Your task to perform on an android device: change the upload size in google photos Image 0: 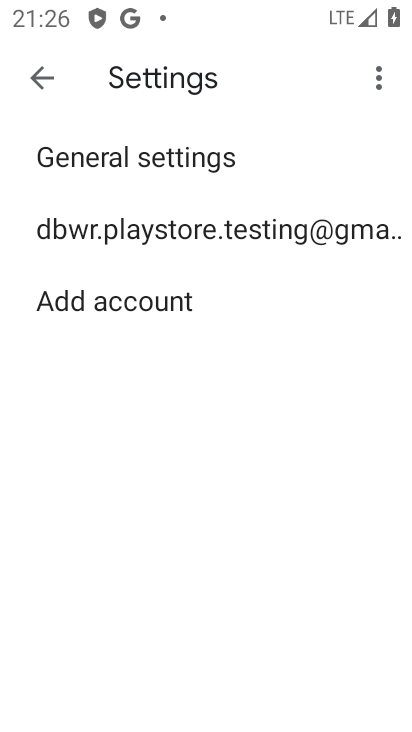
Step 0: click (31, 71)
Your task to perform on an android device: change the upload size in google photos Image 1: 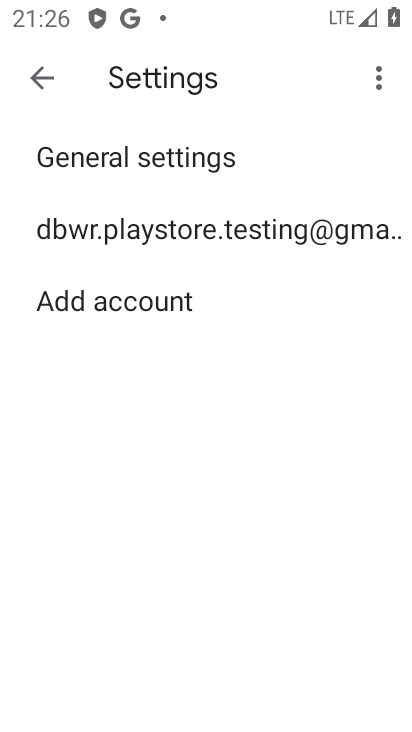
Step 1: click (33, 80)
Your task to perform on an android device: change the upload size in google photos Image 2: 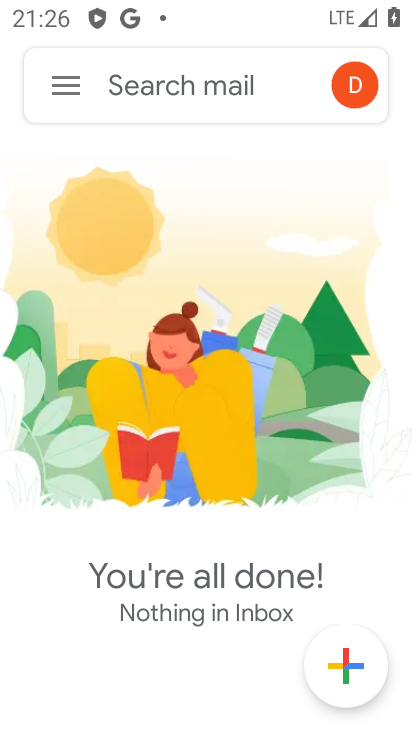
Step 2: press back button
Your task to perform on an android device: change the upload size in google photos Image 3: 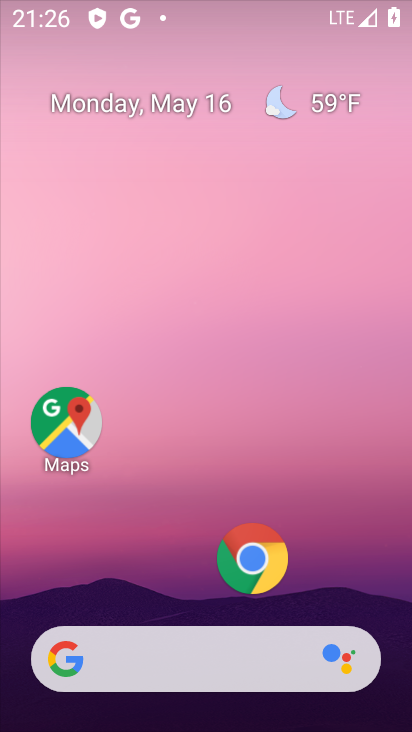
Step 3: drag from (180, 553) to (269, 95)
Your task to perform on an android device: change the upload size in google photos Image 4: 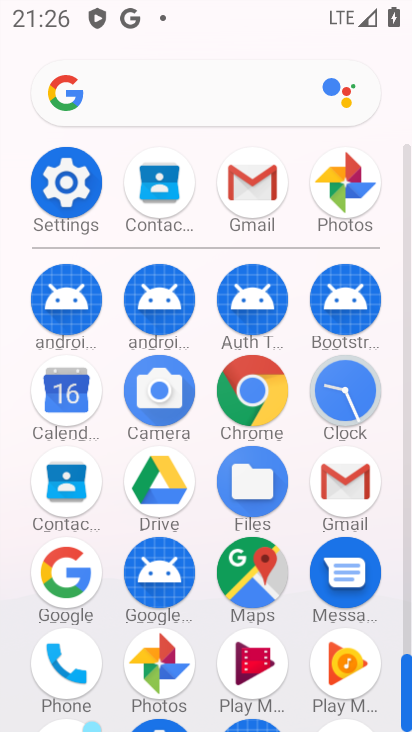
Step 4: click (133, 661)
Your task to perform on an android device: change the upload size in google photos Image 5: 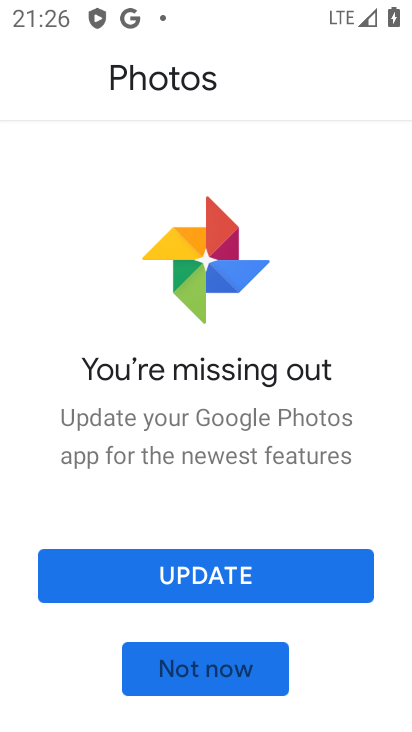
Step 5: click (210, 567)
Your task to perform on an android device: change the upload size in google photos Image 6: 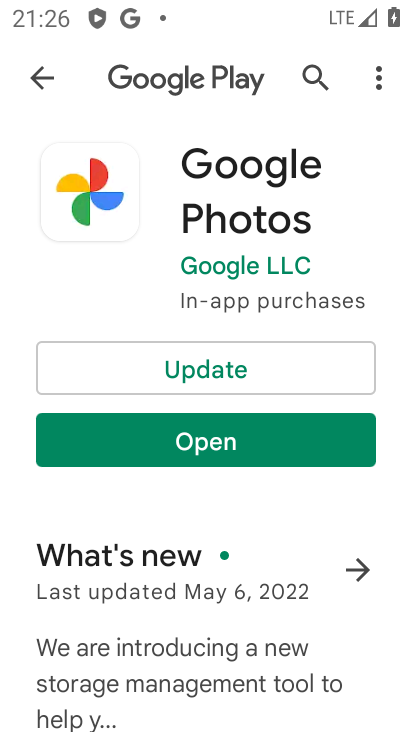
Step 6: click (215, 450)
Your task to perform on an android device: change the upload size in google photos Image 7: 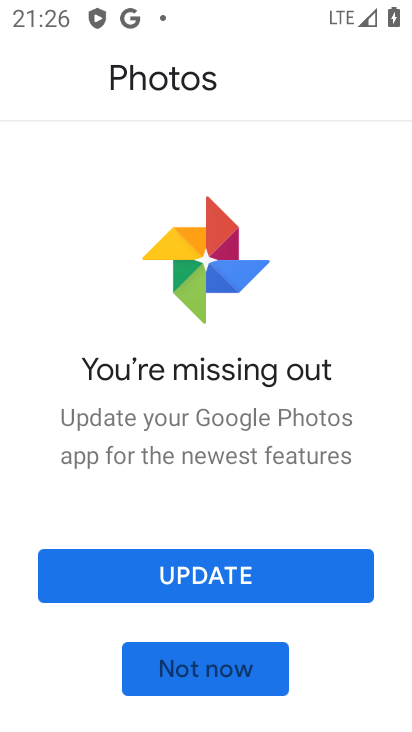
Step 7: click (64, 84)
Your task to perform on an android device: change the upload size in google photos Image 8: 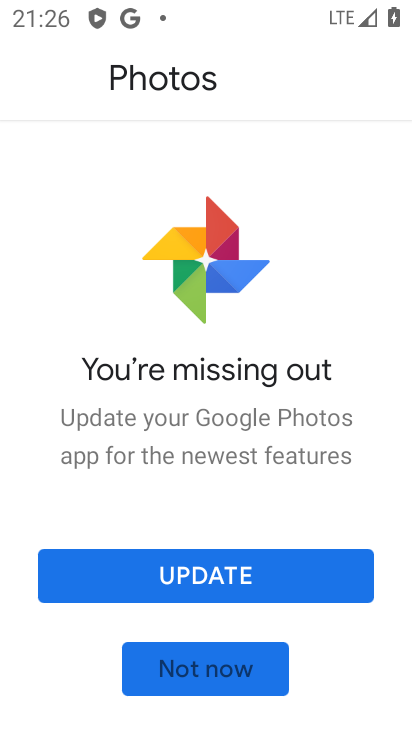
Step 8: click (176, 671)
Your task to perform on an android device: change the upload size in google photos Image 9: 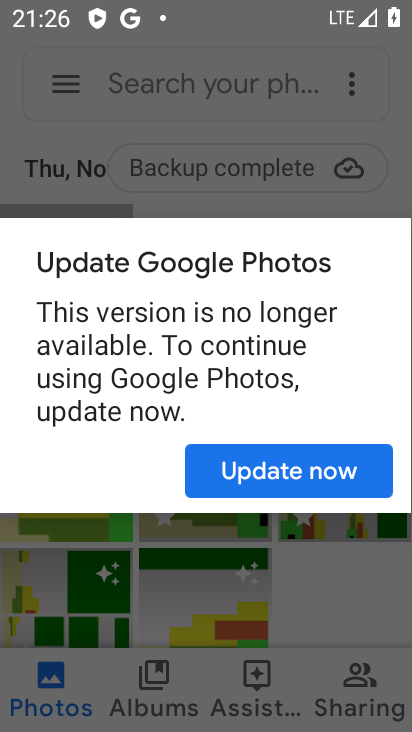
Step 9: click (239, 460)
Your task to perform on an android device: change the upload size in google photos Image 10: 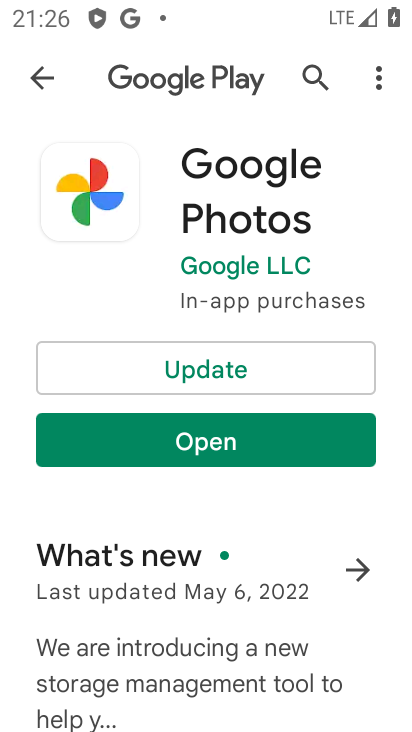
Step 10: click (271, 453)
Your task to perform on an android device: change the upload size in google photos Image 11: 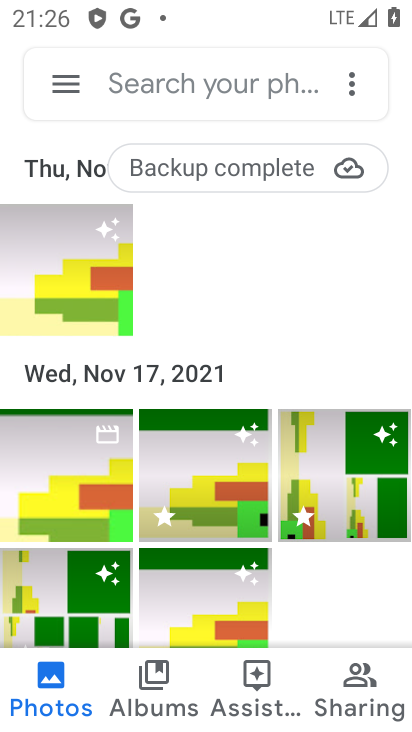
Step 11: click (64, 74)
Your task to perform on an android device: change the upload size in google photos Image 12: 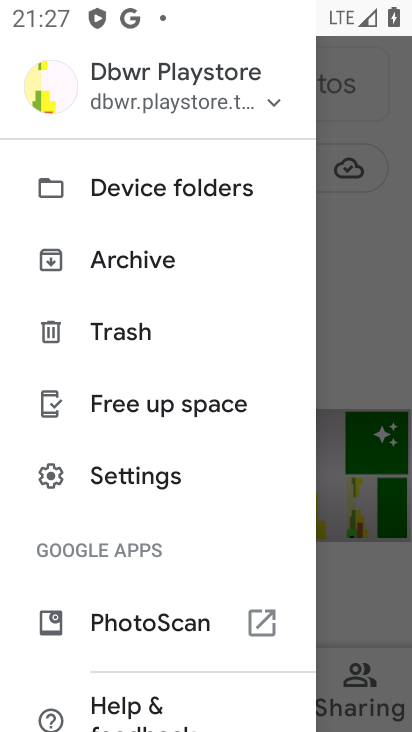
Step 12: click (145, 473)
Your task to perform on an android device: change the upload size in google photos Image 13: 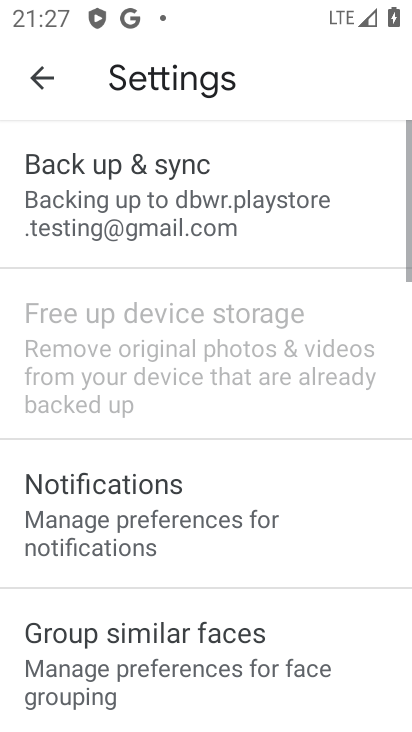
Step 13: click (124, 202)
Your task to perform on an android device: change the upload size in google photos Image 14: 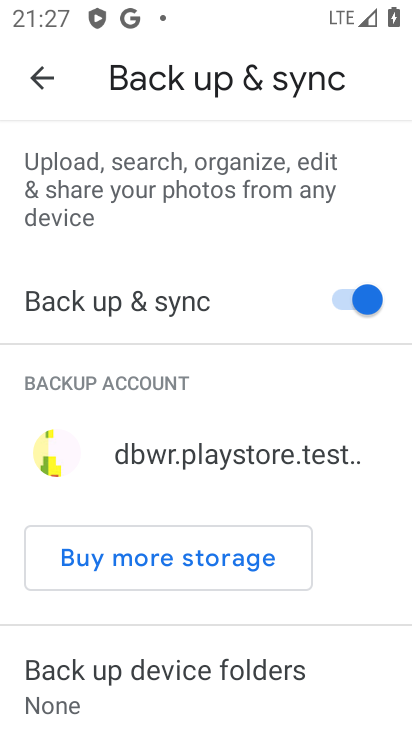
Step 14: drag from (182, 649) to (263, 225)
Your task to perform on an android device: change the upload size in google photos Image 15: 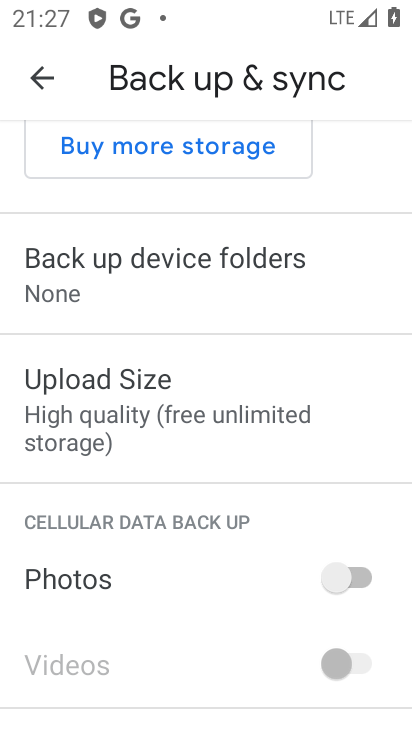
Step 15: click (70, 427)
Your task to perform on an android device: change the upload size in google photos Image 16: 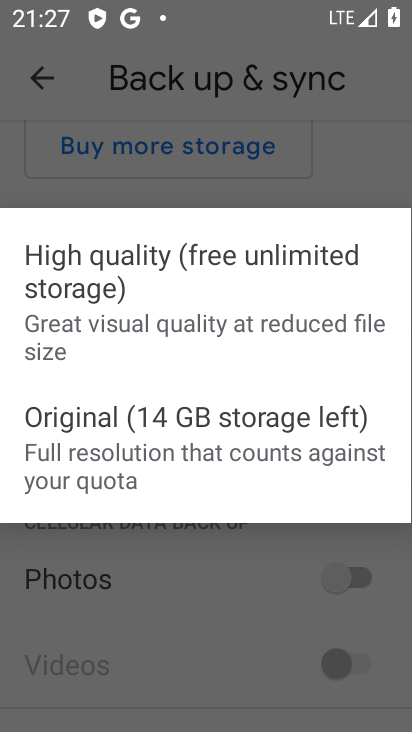
Step 16: click (127, 461)
Your task to perform on an android device: change the upload size in google photos Image 17: 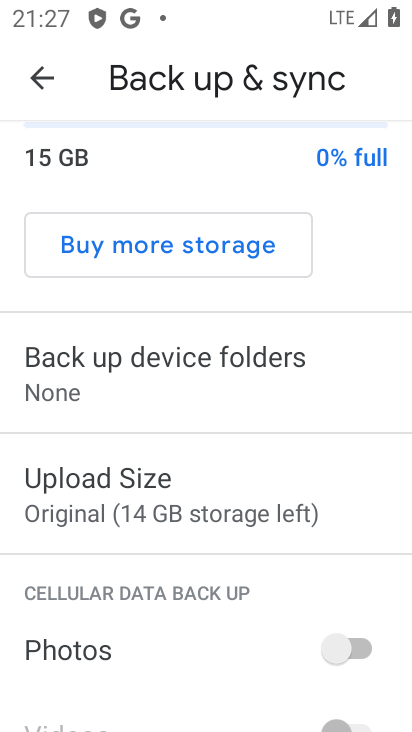
Step 17: task complete